Your task to perform on an android device: Go to ESPN.com Image 0: 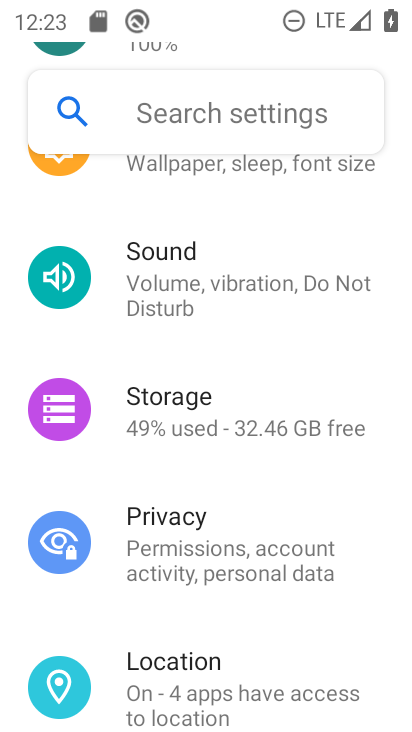
Step 0: press home button
Your task to perform on an android device: Go to ESPN.com Image 1: 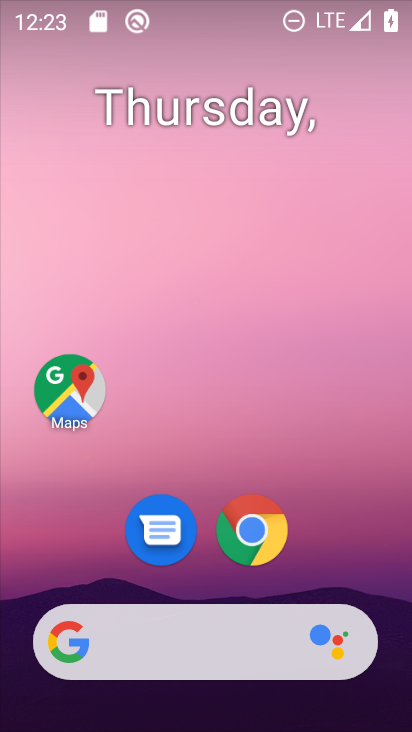
Step 1: click (270, 532)
Your task to perform on an android device: Go to ESPN.com Image 2: 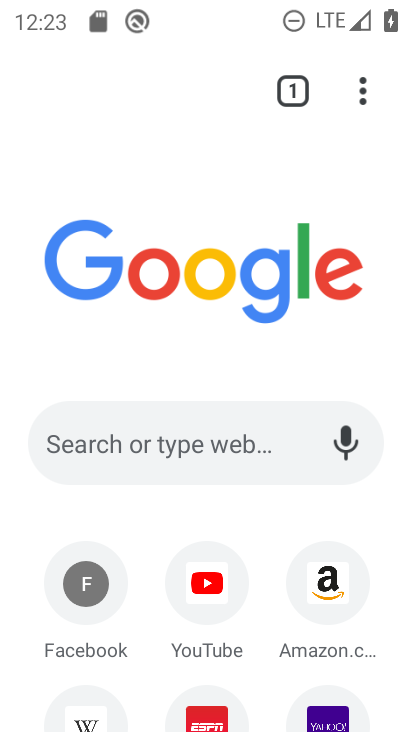
Step 2: click (211, 706)
Your task to perform on an android device: Go to ESPN.com Image 3: 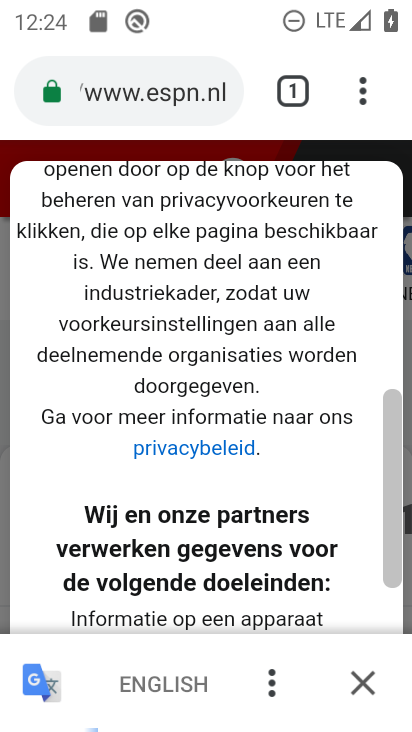
Step 3: task complete